Your task to perform on an android device: change alarm snooze length Image 0: 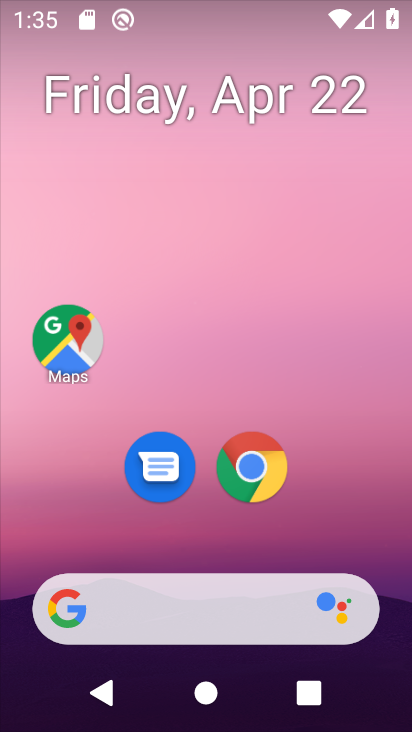
Step 0: drag from (351, 467) to (347, 80)
Your task to perform on an android device: change alarm snooze length Image 1: 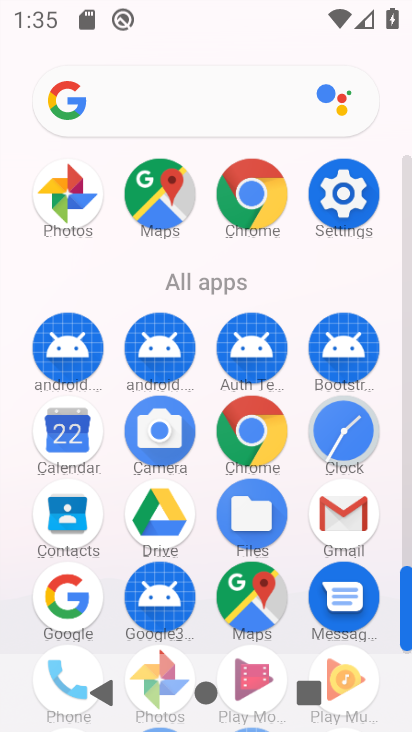
Step 1: click (334, 445)
Your task to perform on an android device: change alarm snooze length Image 2: 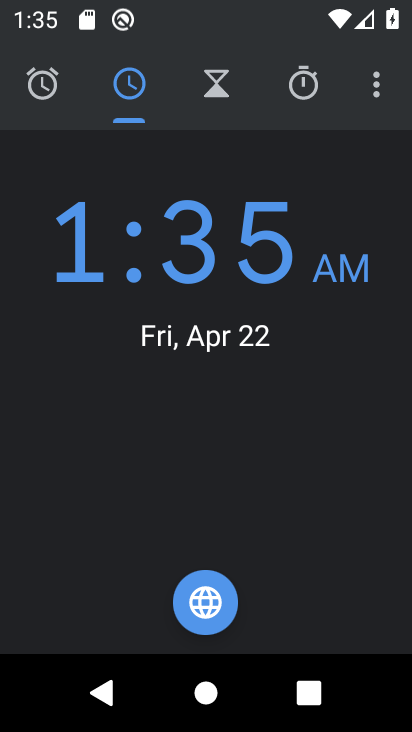
Step 2: drag from (379, 91) to (343, 151)
Your task to perform on an android device: change alarm snooze length Image 3: 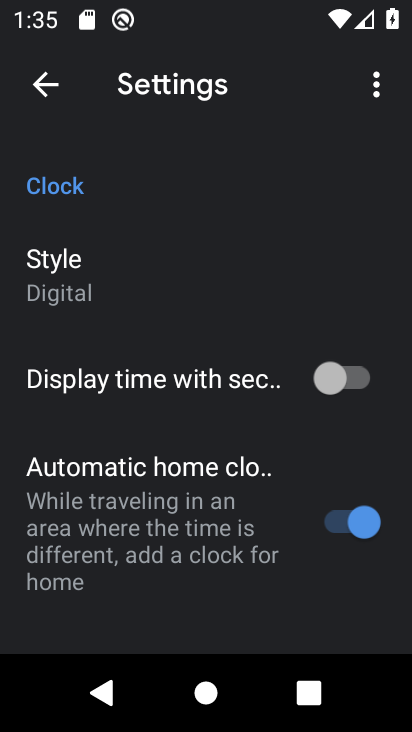
Step 3: drag from (194, 585) to (179, 232)
Your task to perform on an android device: change alarm snooze length Image 4: 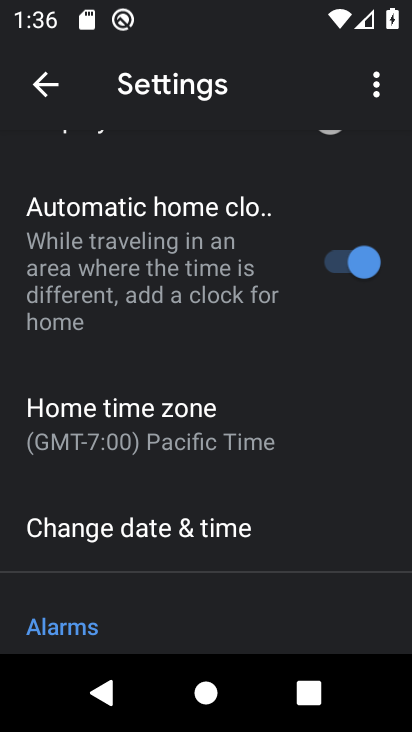
Step 4: drag from (177, 467) to (192, 187)
Your task to perform on an android device: change alarm snooze length Image 5: 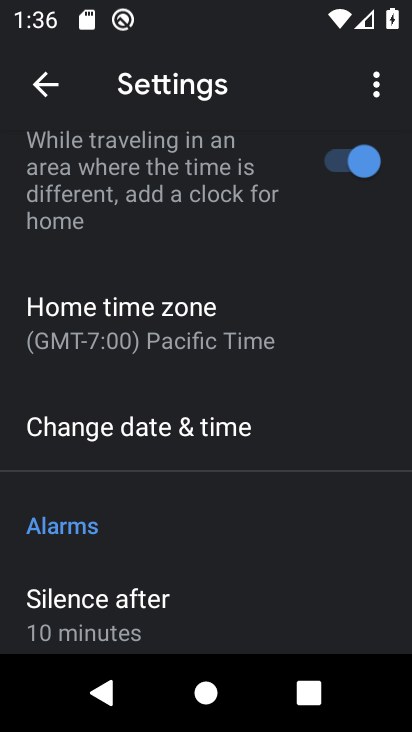
Step 5: drag from (208, 580) to (222, 373)
Your task to perform on an android device: change alarm snooze length Image 6: 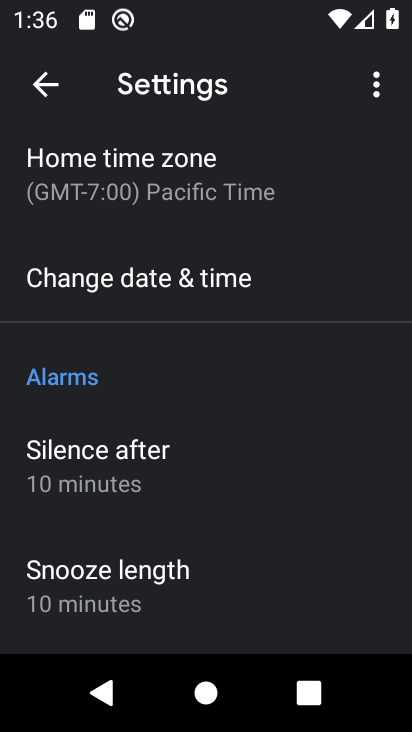
Step 6: click (149, 614)
Your task to perform on an android device: change alarm snooze length Image 7: 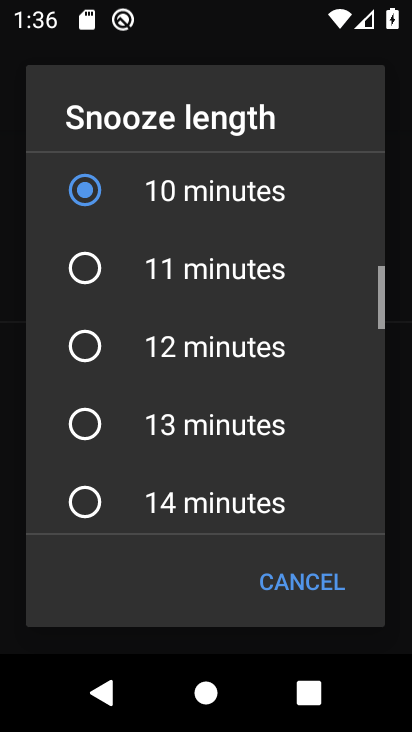
Step 7: click (94, 268)
Your task to perform on an android device: change alarm snooze length Image 8: 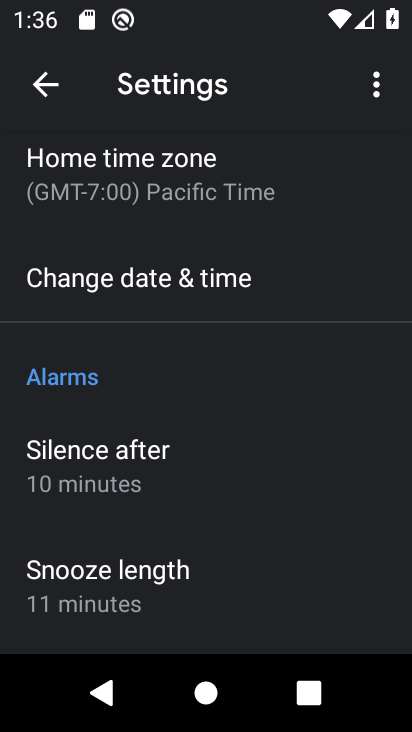
Step 8: task complete